Your task to perform on an android device: turn on wifi Image 0: 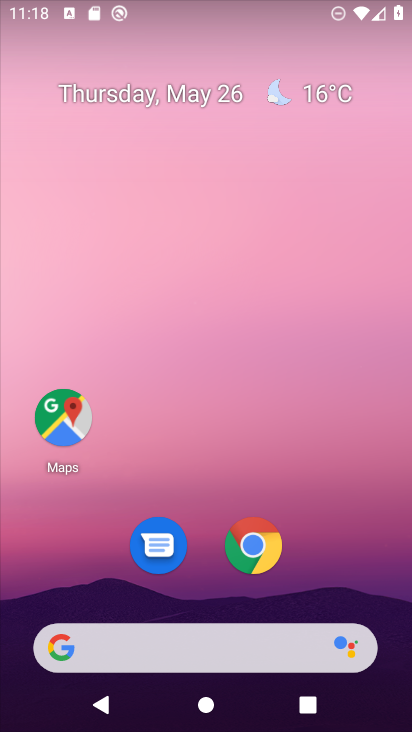
Step 0: press home button
Your task to perform on an android device: turn on wifi Image 1: 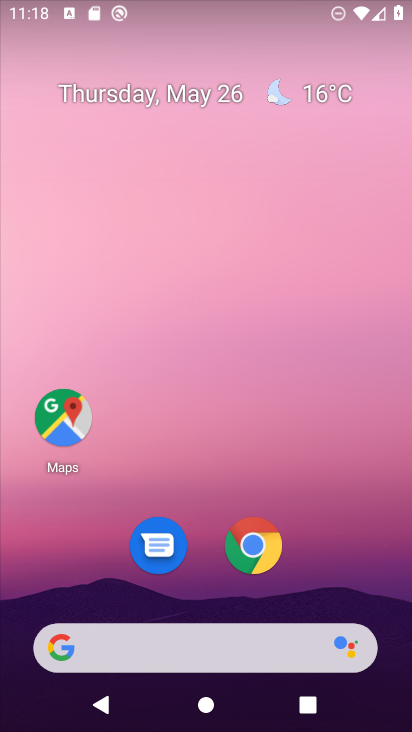
Step 1: task complete